Your task to perform on an android device: toggle wifi Image 0: 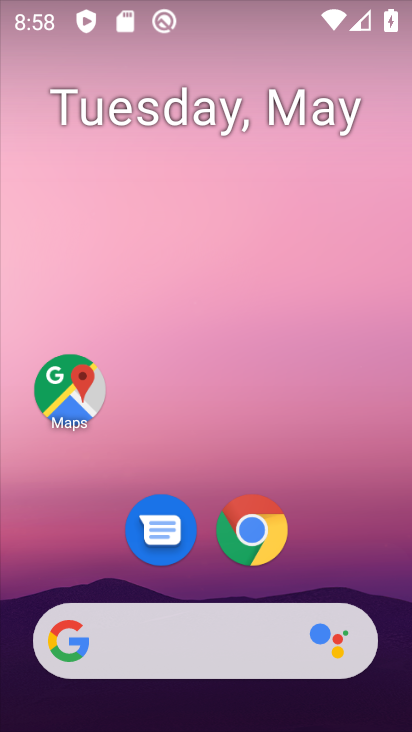
Step 0: drag from (334, 537) to (348, 85)
Your task to perform on an android device: toggle wifi Image 1: 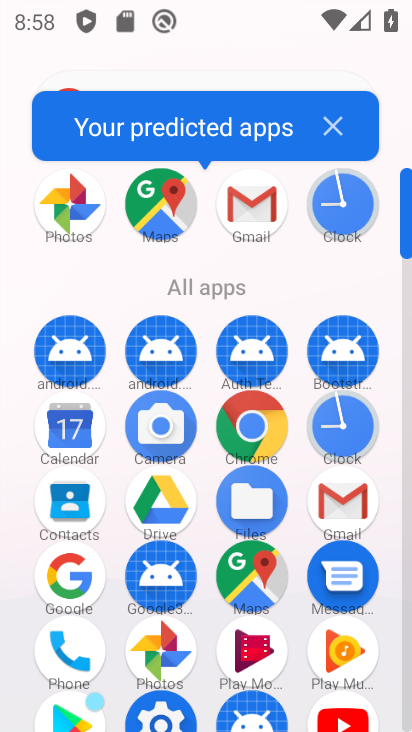
Step 1: drag from (287, 654) to (312, 198)
Your task to perform on an android device: toggle wifi Image 2: 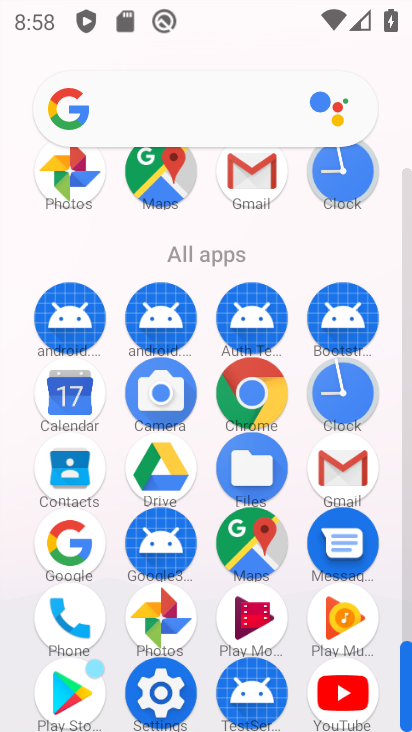
Step 2: click (163, 697)
Your task to perform on an android device: toggle wifi Image 3: 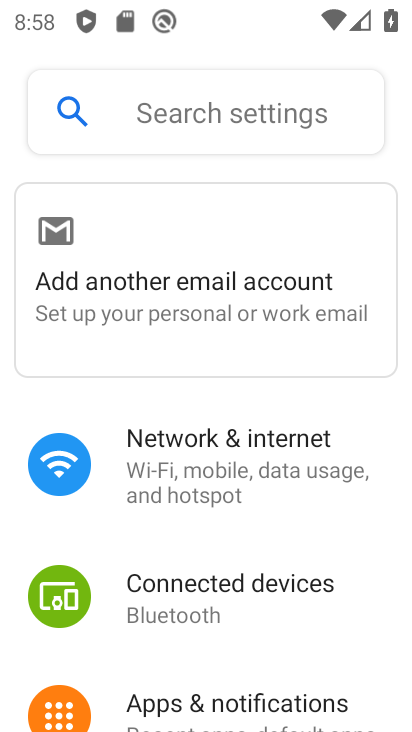
Step 3: click (260, 469)
Your task to perform on an android device: toggle wifi Image 4: 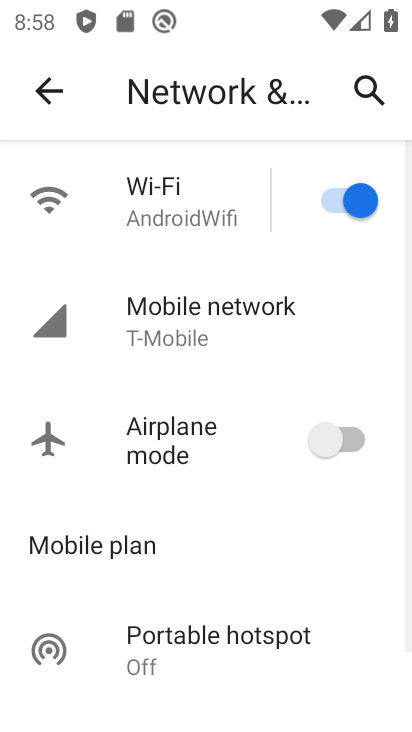
Step 4: click (202, 186)
Your task to perform on an android device: toggle wifi Image 5: 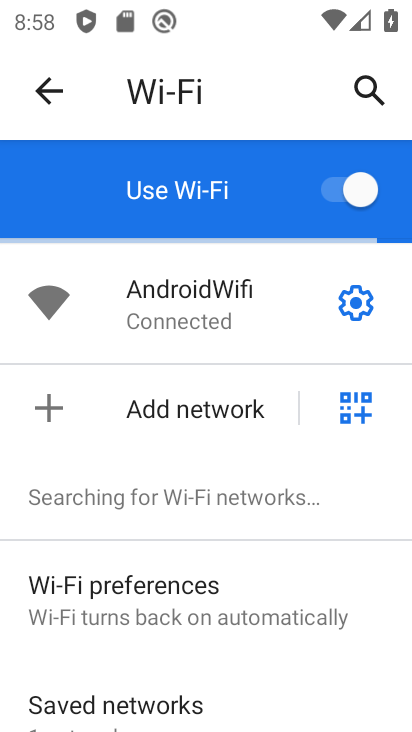
Step 5: click (358, 205)
Your task to perform on an android device: toggle wifi Image 6: 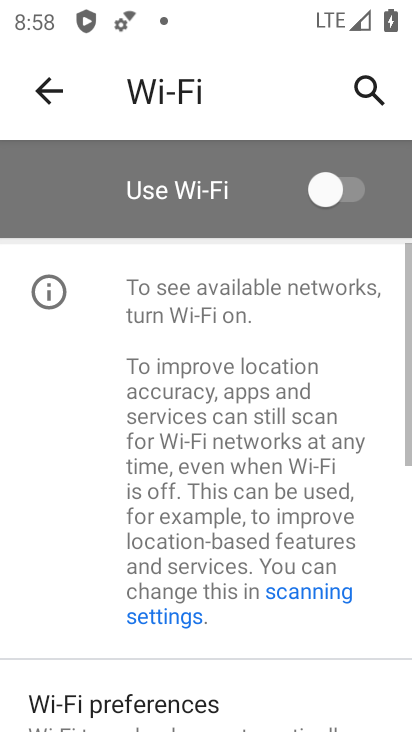
Step 6: task complete